Your task to perform on an android device: turn off location history Image 0: 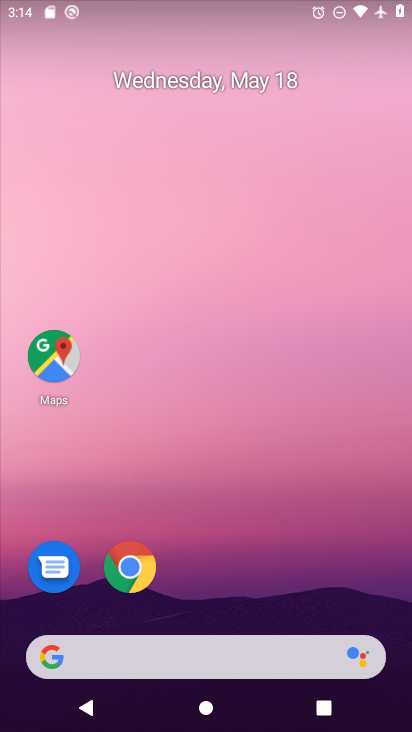
Step 0: drag from (242, 635) to (278, 223)
Your task to perform on an android device: turn off location history Image 1: 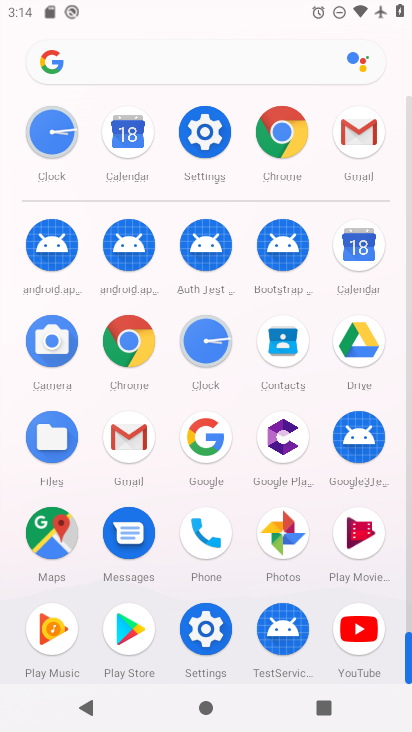
Step 1: click (215, 116)
Your task to perform on an android device: turn off location history Image 2: 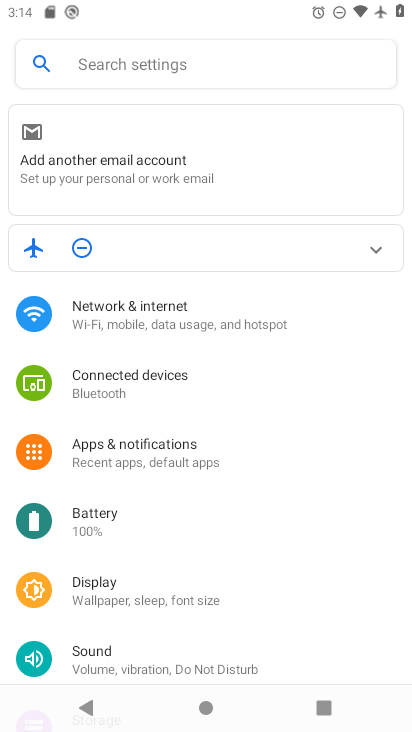
Step 2: drag from (179, 595) to (211, 205)
Your task to perform on an android device: turn off location history Image 3: 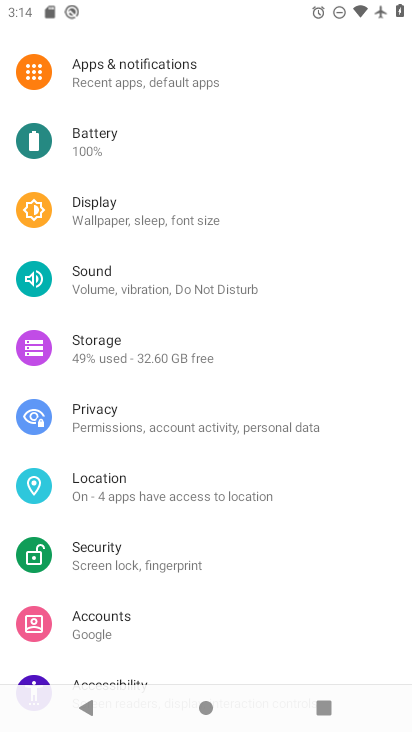
Step 3: click (129, 479)
Your task to perform on an android device: turn off location history Image 4: 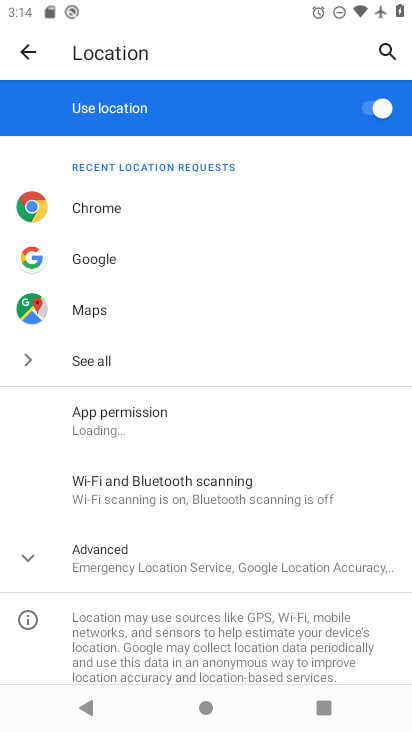
Step 4: click (150, 568)
Your task to perform on an android device: turn off location history Image 5: 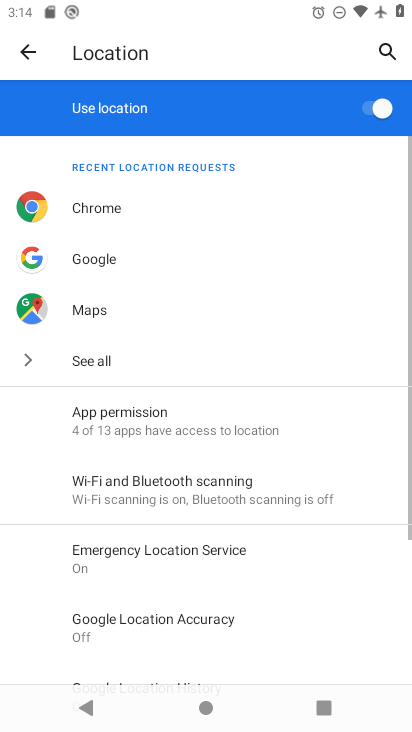
Step 5: drag from (196, 605) to (218, 244)
Your task to perform on an android device: turn off location history Image 6: 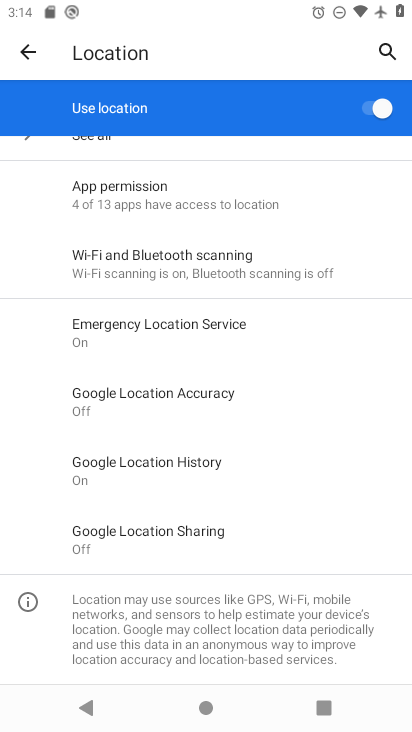
Step 6: click (172, 454)
Your task to perform on an android device: turn off location history Image 7: 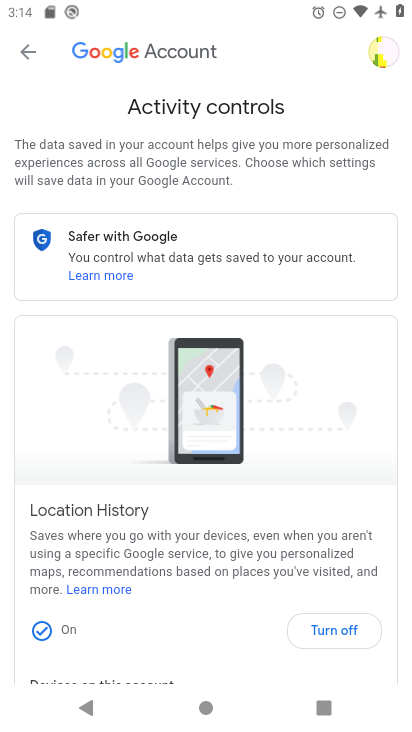
Step 7: click (364, 626)
Your task to perform on an android device: turn off location history Image 8: 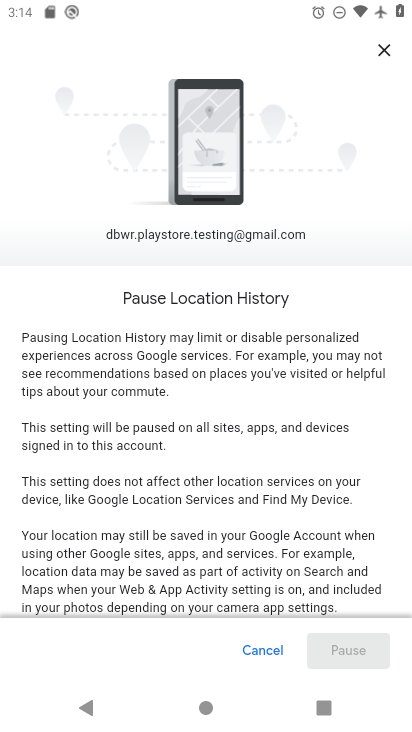
Step 8: task complete